Your task to perform on an android device: Search for pizza restaurants on Maps Image 0: 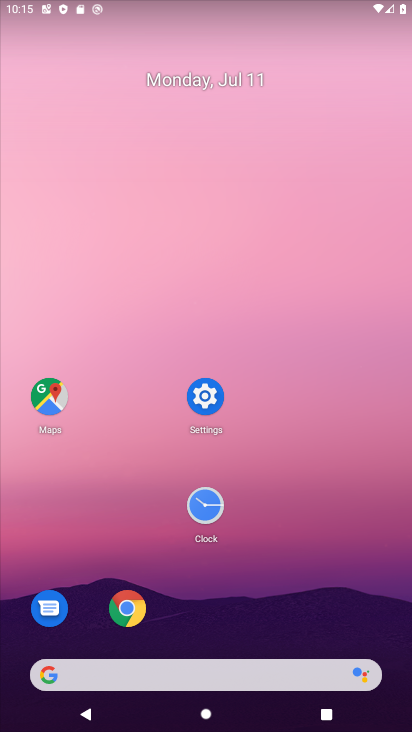
Step 0: click (44, 397)
Your task to perform on an android device: Search for pizza restaurants on Maps Image 1: 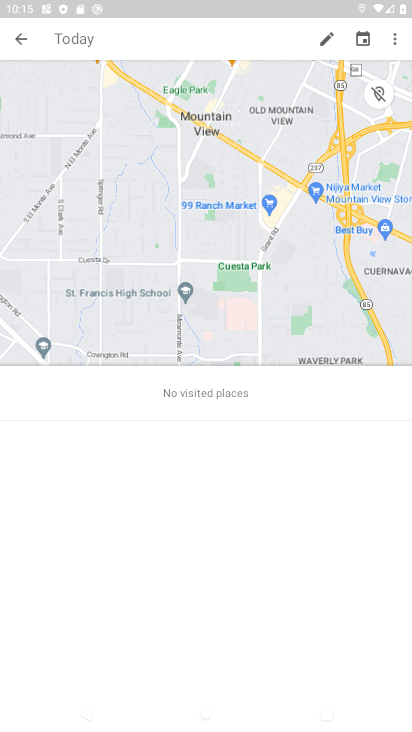
Step 1: click (183, 48)
Your task to perform on an android device: Search for pizza restaurants on Maps Image 2: 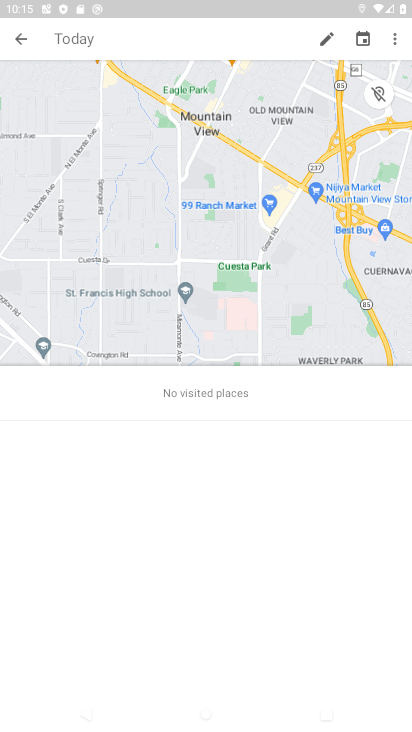
Step 2: type "pizza restaurants"
Your task to perform on an android device: Search for pizza restaurants on Maps Image 3: 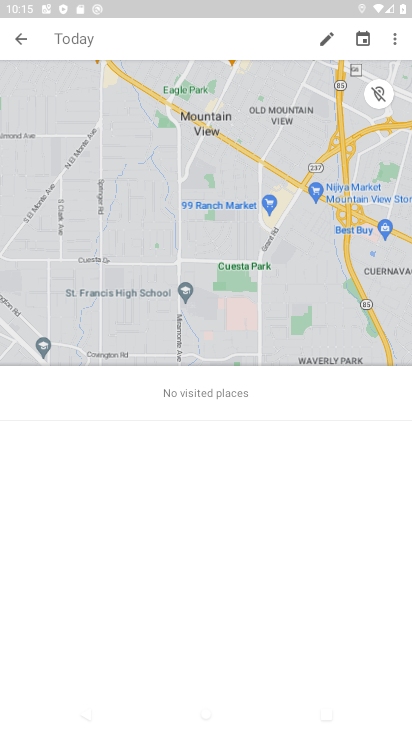
Step 3: click (94, 36)
Your task to perform on an android device: Search for pizza restaurants on Maps Image 4: 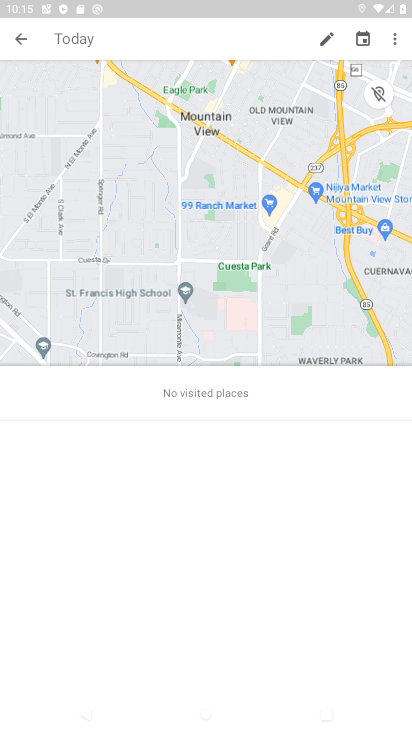
Step 4: click (19, 38)
Your task to perform on an android device: Search for pizza restaurants on Maps Image 5: 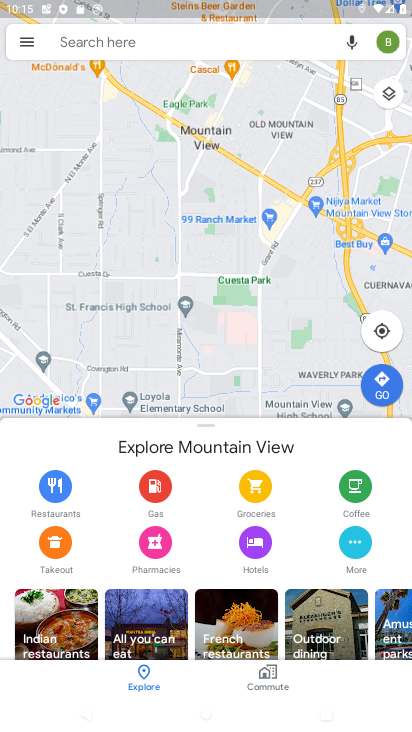
Step 5: click (103, 40)
Your task to perform on an android device: Search for pizza restaurants on Maps Image 6: 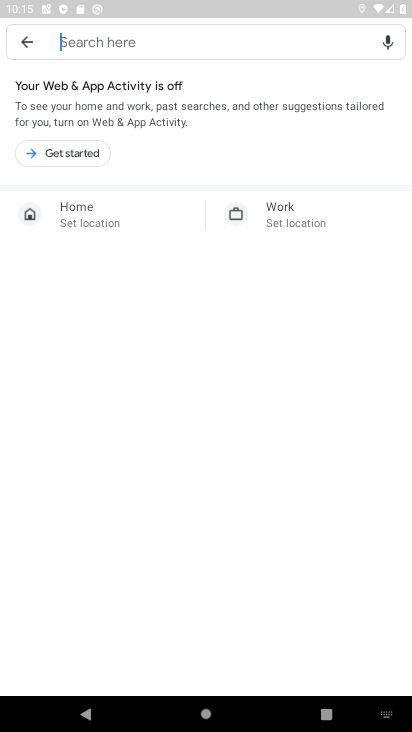
Step 6: type "pizza restaurants"
Your task to perform on an android device: Search for pizza restaurants on Maps Image 7: 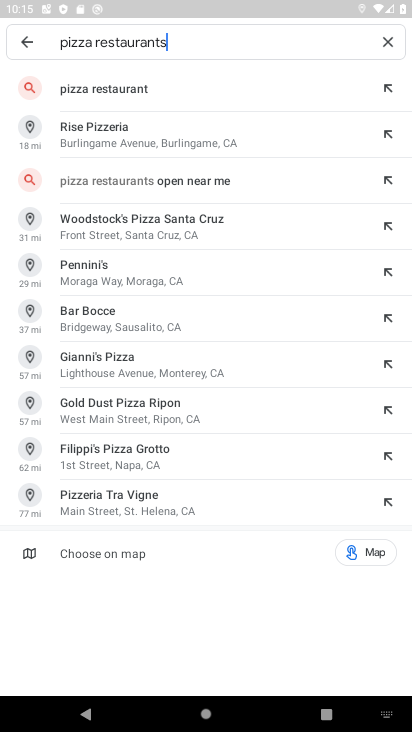
Step 7: click (147, 91)
Your task to perform on an android device: Search for pizza restaurants on Maps Image 8: 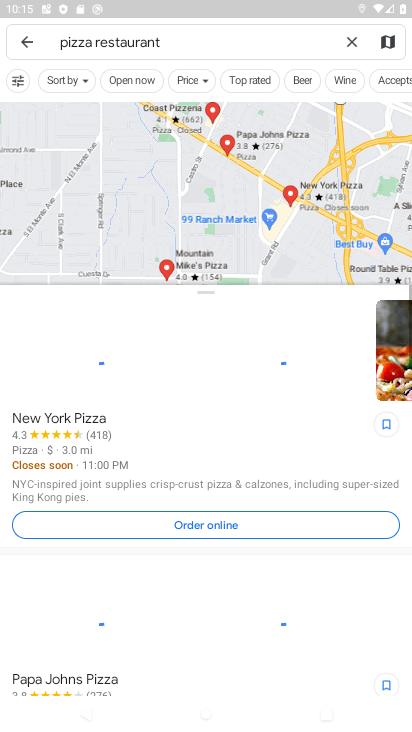
Step 8: task complete